Your task to perform on an android device: turn off sleep mode Image 0: 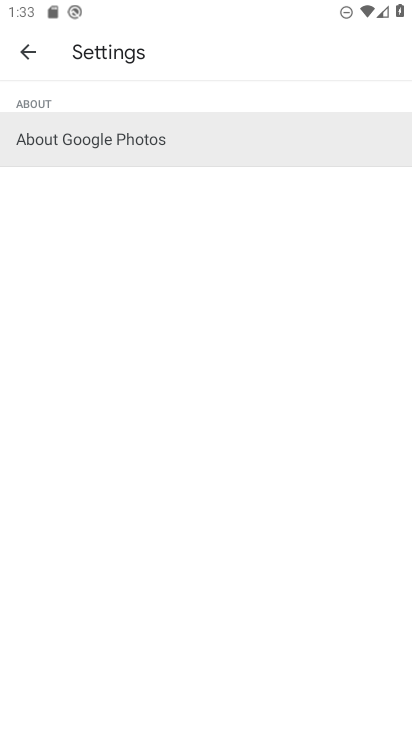
Step 0: press home button
Your task to perform on an android device: turn off sleep mode Image 1: 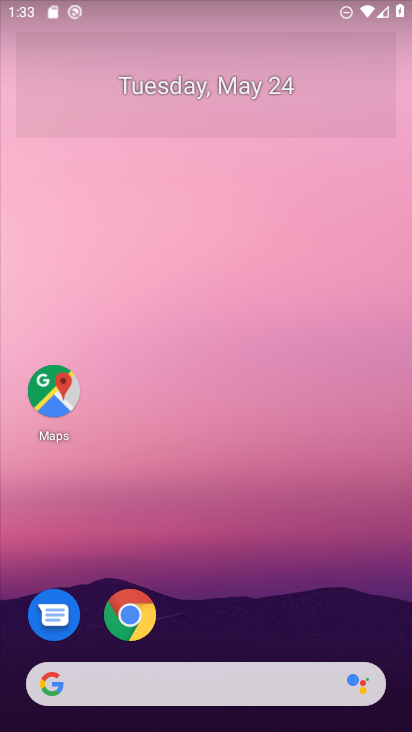
Step 1: drag from (201, 620) to (275, 47)
Your task to perform on an android device: turn off sleep mode Image 2: 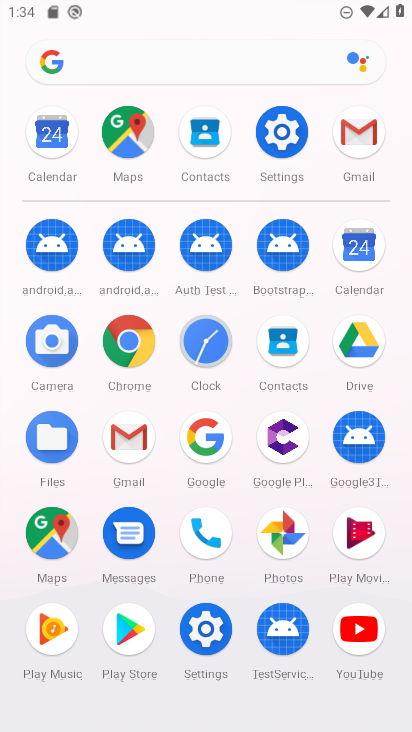
Step 2: click (280, 128)
Your task to perform on an android device: turn off sleep mode Image 3: 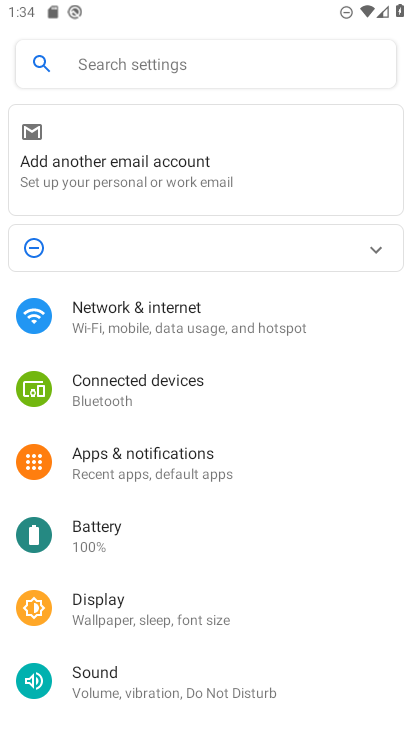
Step 3: click (107, 62)
Your task to perform on an android device: turn off sleep mode Image 4: 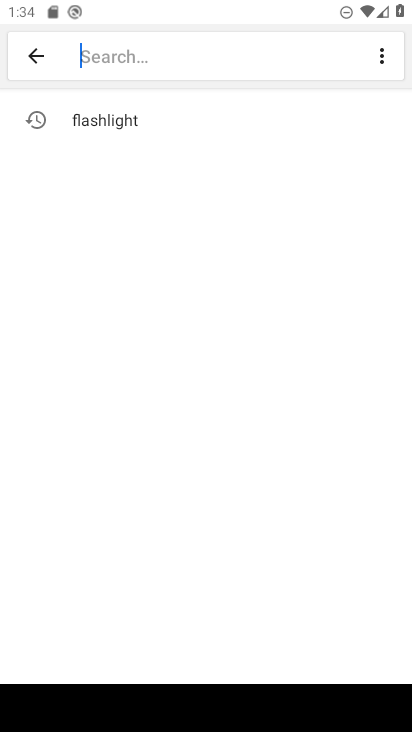
Step 4: type "sleep mode"
Your task to perform on an android device: turn off sleep mode Image 5: 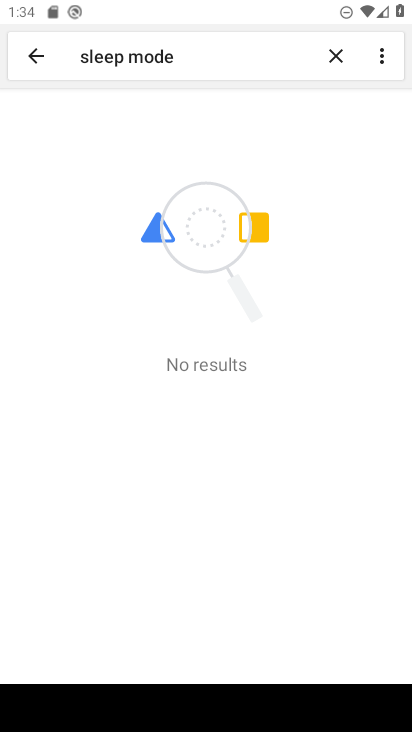
Step 5: task complete